Your task to perform on an android device: Open display settings Image 0: 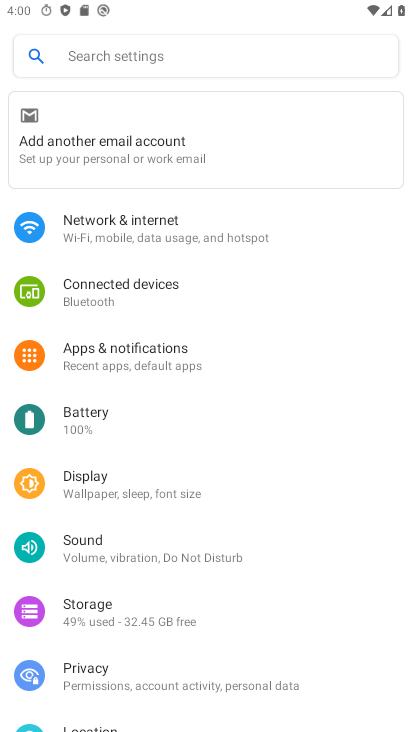
Step 0: press home button
Your task to perform on an android device: Open display settings Image 1: 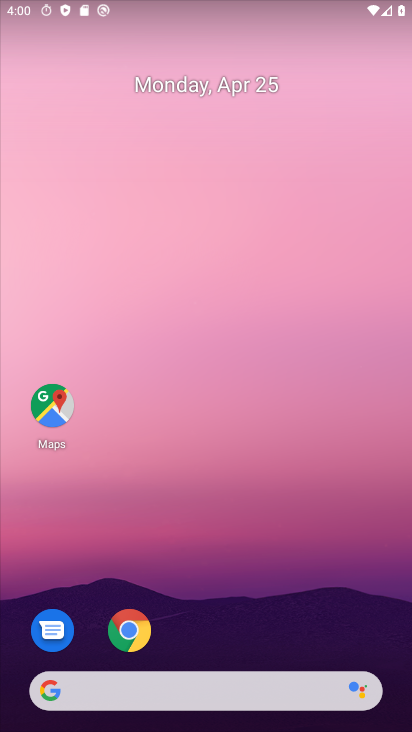
Step 1: drag from (349, 596) to (341, 129)
Your task to perform on an android device: Open display settings Image 2: 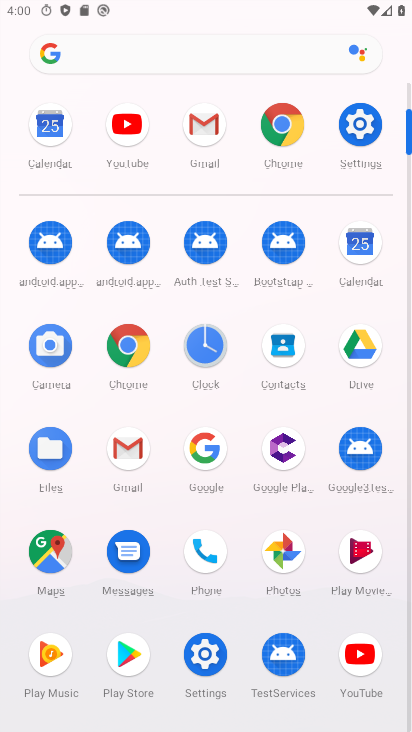
Step 2: click (363, 133)
Your task to perform on an android device: Open display settings Image 3: 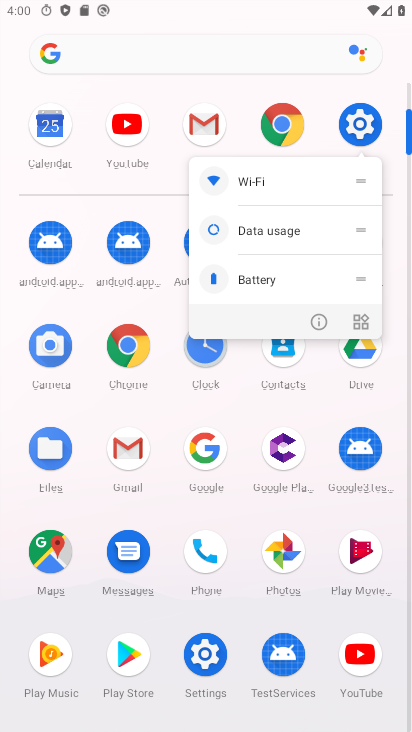
Step 3: click (363, 133)
Your task to perform on an android device: Open display settings Image 4: 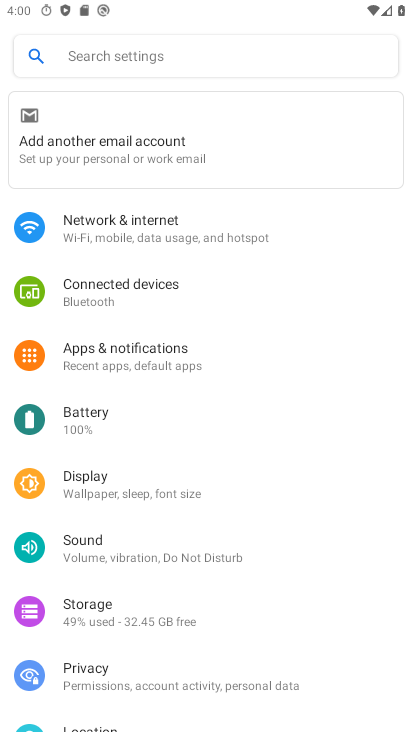
Step 4: click (129, 480)
Your task to perform on an android device: Open display settings Image 5: 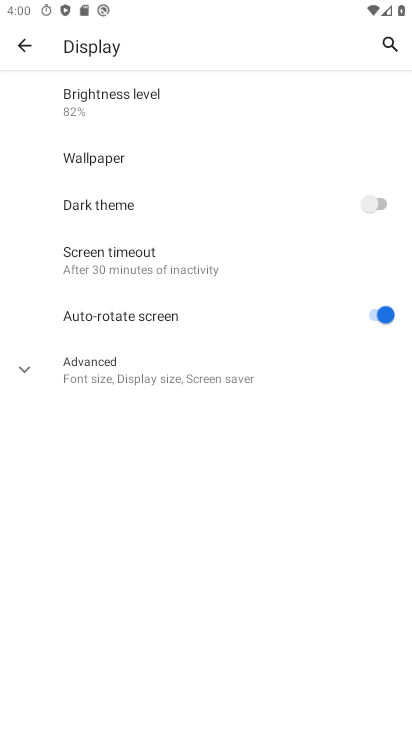
Step 5: task complete